Your task to perform on an android device: open device folders in google photos Image 0: 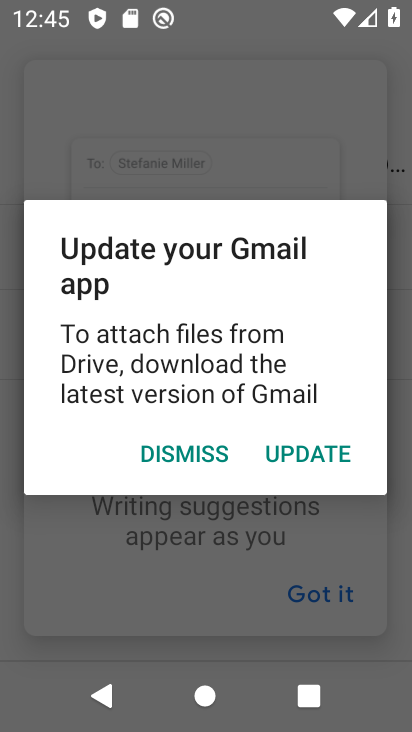
Step 0: press home button
Your task to perform on an android device: open device folders in google photos Image 1: 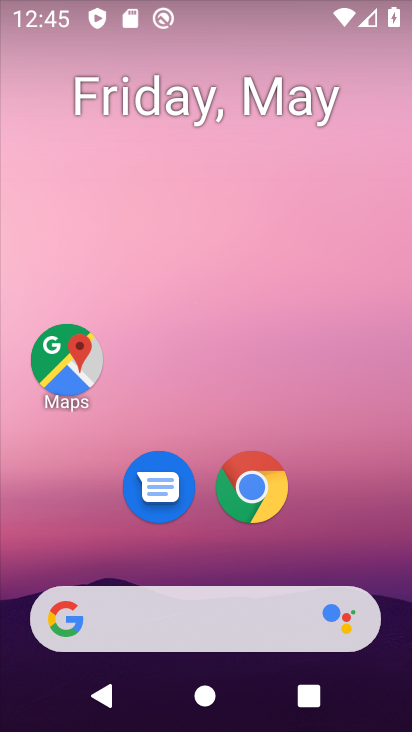
Step 1: drag from (182, 525) to (194, 164)
Your task to perform on an android device: open device folders in google photos Image 2: 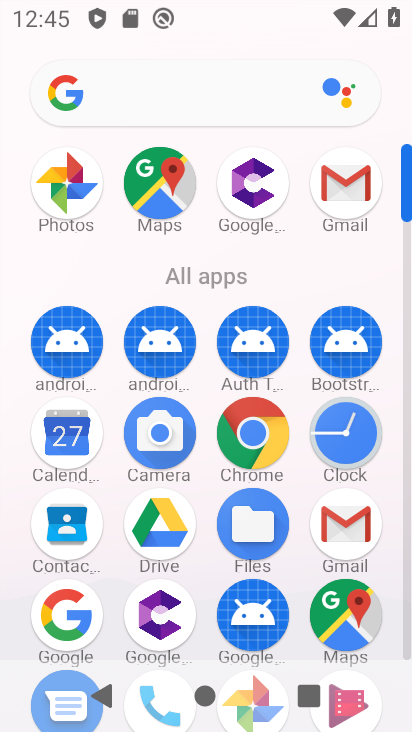
Step 2: click (81, 212)
Your task to perform on an android device: open device folders in google photos Image 3: 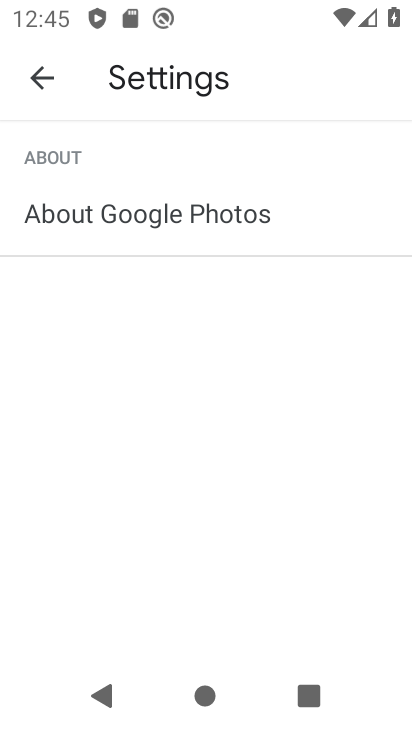
Step 3: click (43, 88)
Your task to perform on an android device: open device folders in google photos Image 4: 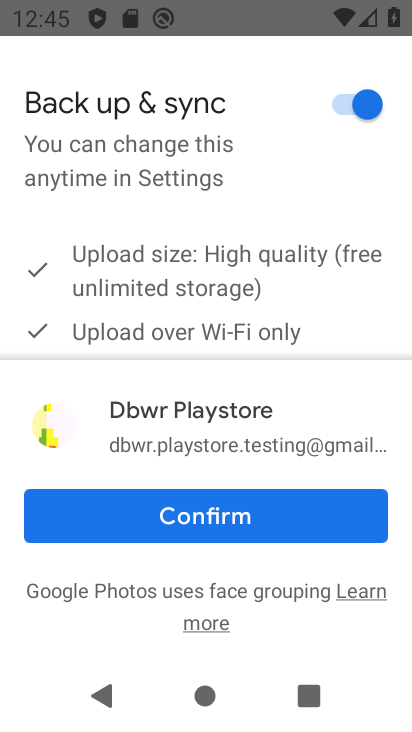
Step 4: click (182, 524)
Your task to perform on an android device: open device folders in google photos Image 5: 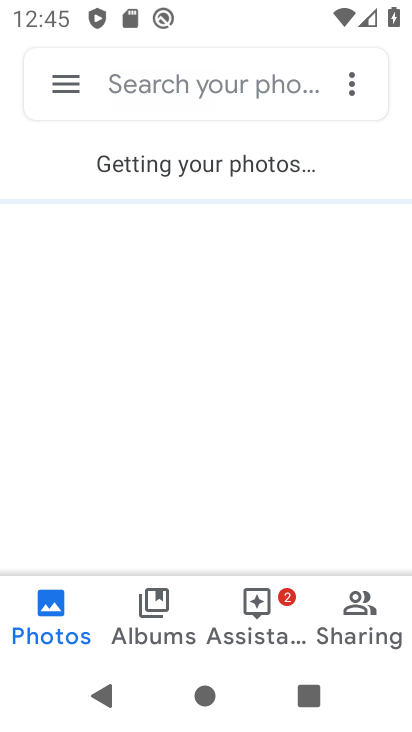
Step 5: click (71, 81)
Your task to perform on an android device: open device folders in google photos Image 6: 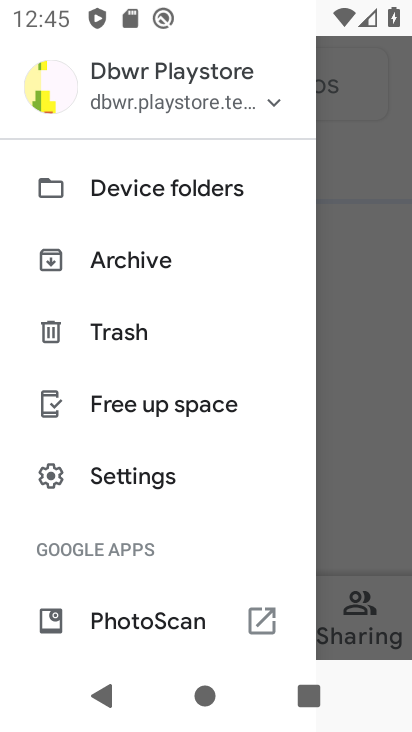
Step 6: click (206, 191)
Your task to perform on an android device: open device folders in google photos Image 7: 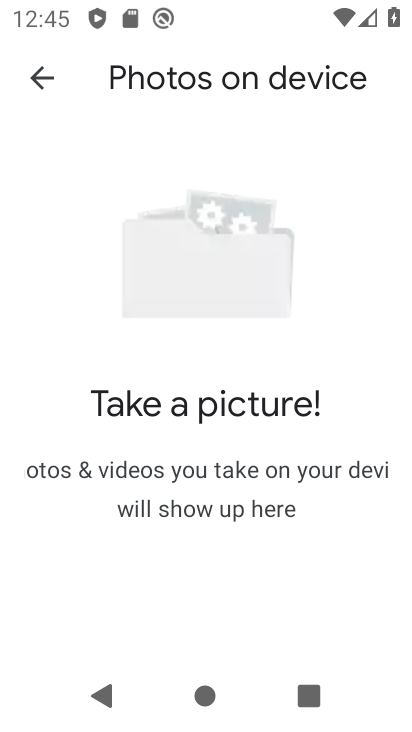
Step 7: task complete